Your task to perform on an android device: see sites visited before in the chrome app Image 0: 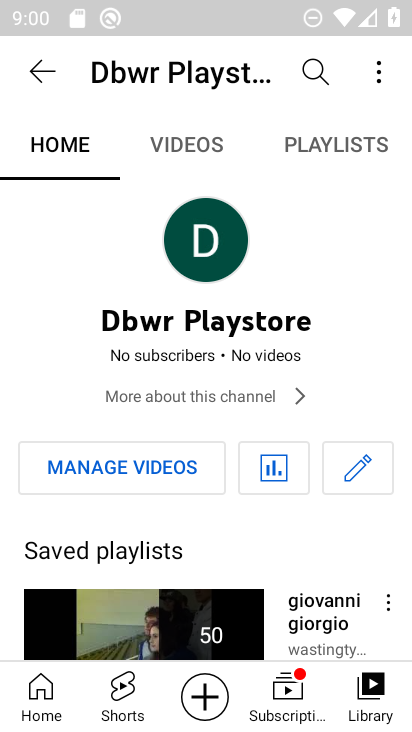
Step 0: press home button
Your task to perform on an android device: see sites visited before in the chrome app Image 1: 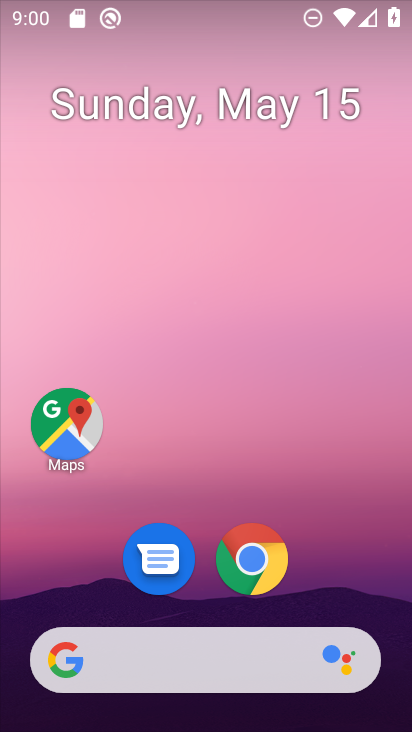
Step 1: click (282, 579)
Your task to perform on an android device: see sites visited before in the chrome app Image 2: 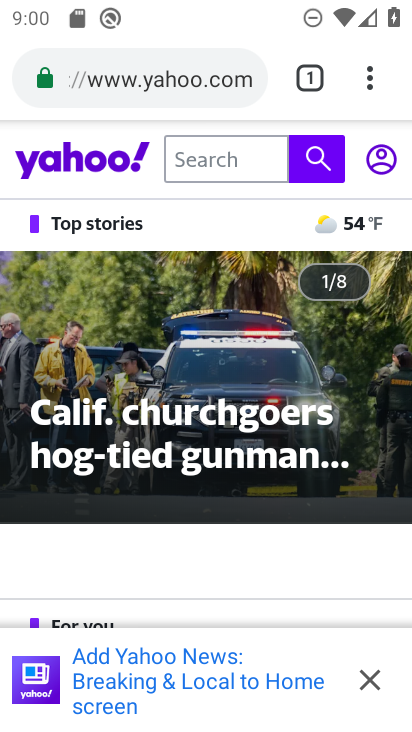
Step 2: click (366, 98)
Your task to perform on an android device: see sites visited before in the chrome app Image 3: 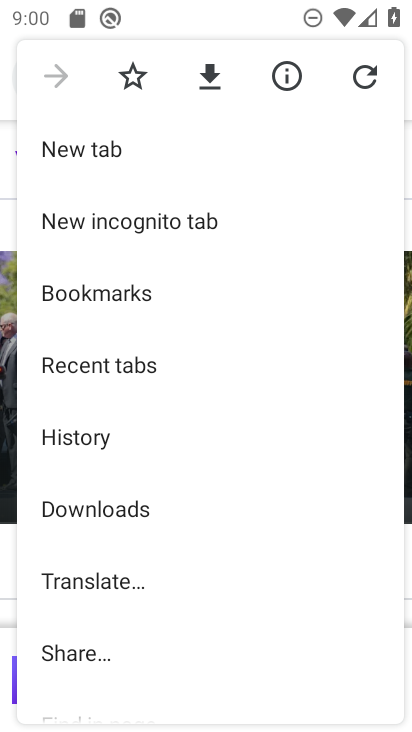
Step 3: drag from (151, 641) to (245, 292)
Your task to perform on an android device: see sites visited before in the chrome app Image 4: 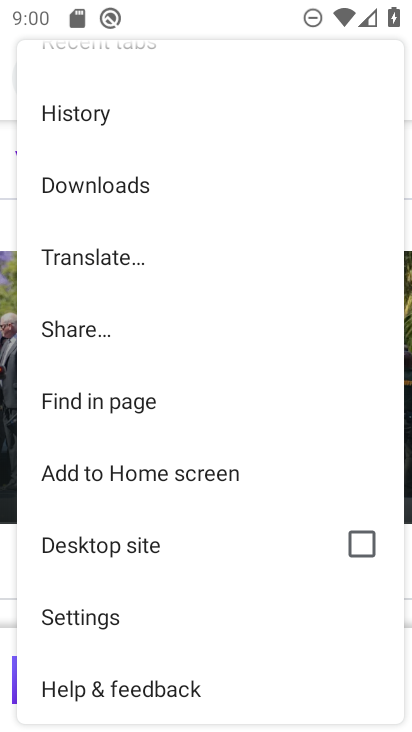
Step 4: click (218, 618)
Your task to perform on an android device: see sites visited before in the chrome app Image 5: 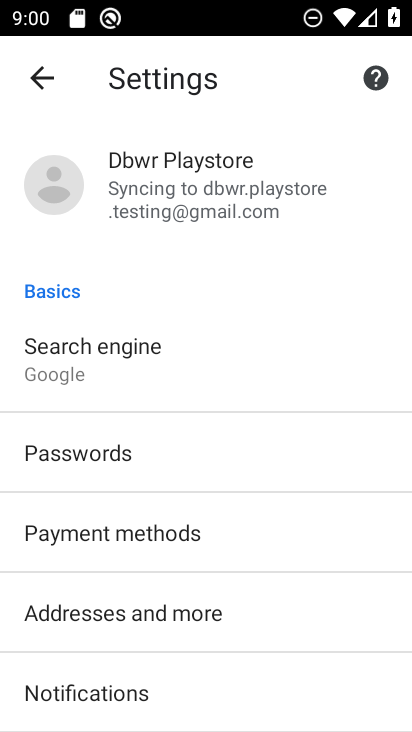
Step 5: drag from (181, 612) to (214, 341)
Your task to perform on an android device: see sites visited before in the chrome app Image 6: 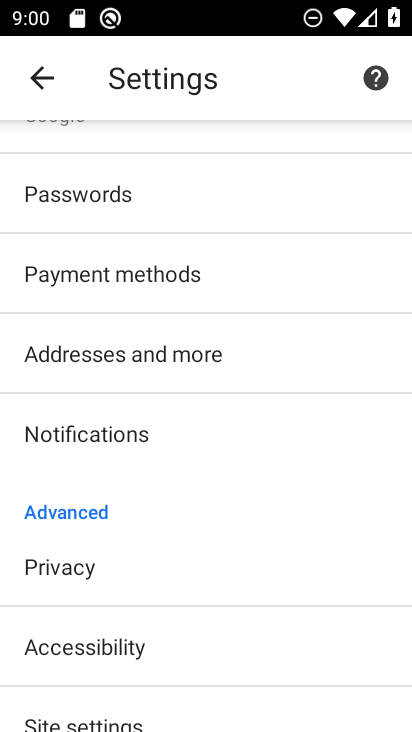
Step 6: click (42, 84)
Your task to perform on an android device: see sites visited before in the chrome app Image 7: 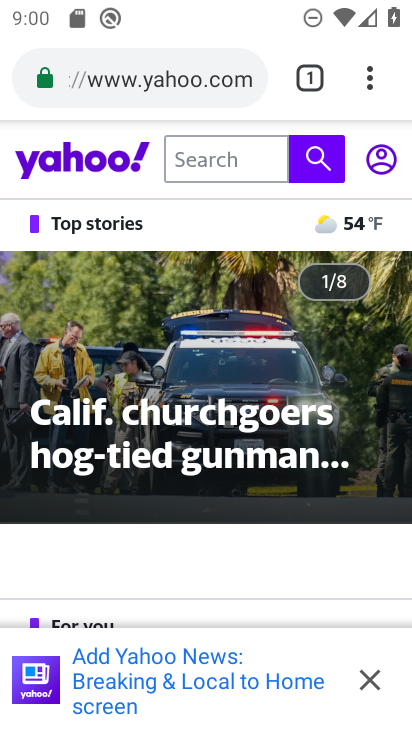
Step 7: click (378, 81)
Your task to perform on an android device: see sites visited before in the chrome app Image 8: 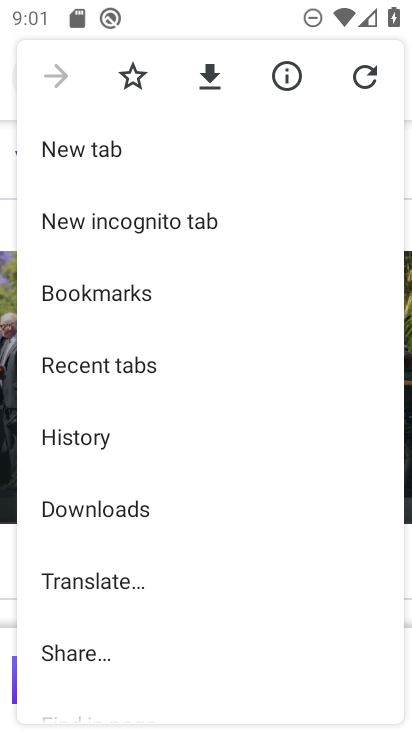
Step 8: click (148, 397)
Your task to perform on an android device: see sites visited before in the chrome app Image 9: 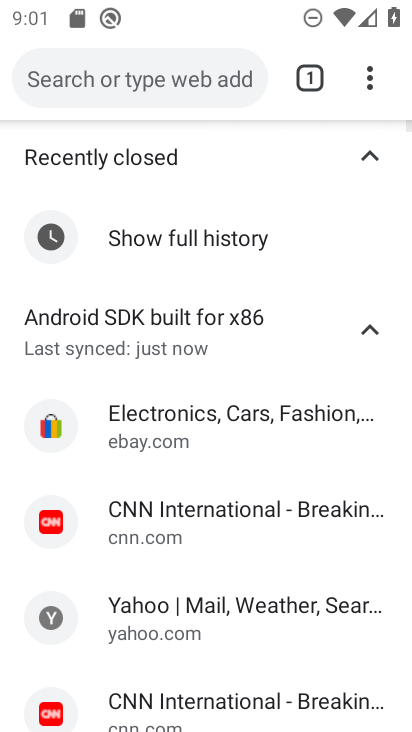
Step 9: task complete